Your task to perform on an android device: open device folders in google photos Image 0: 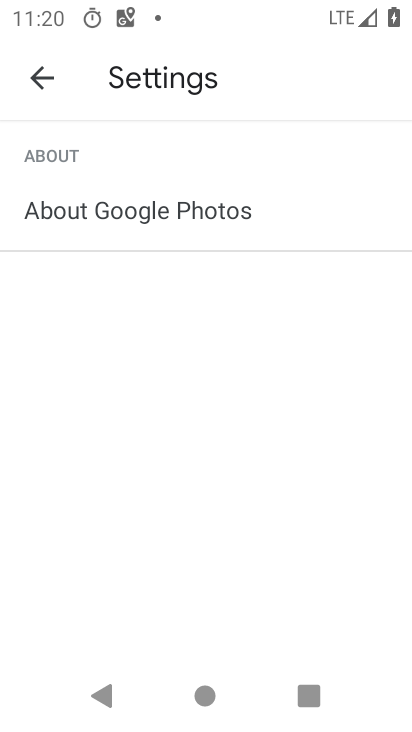
Step 0: press home button
Your task to perform on an android device: open device folders in google photos Image 1: 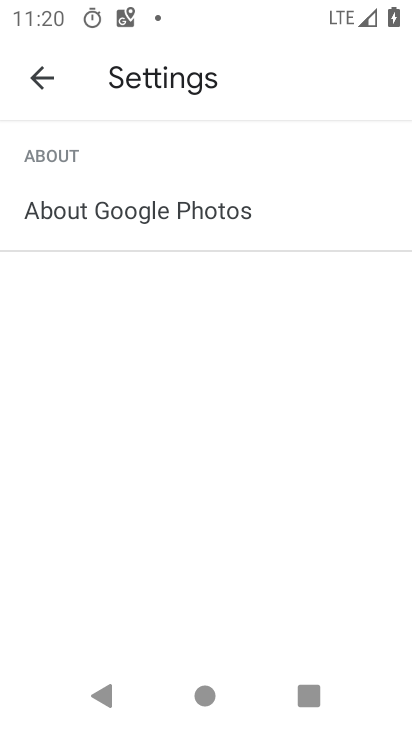
Step 1: press home button
Your task to perform on an android device: open device folders in google photos Image 2: 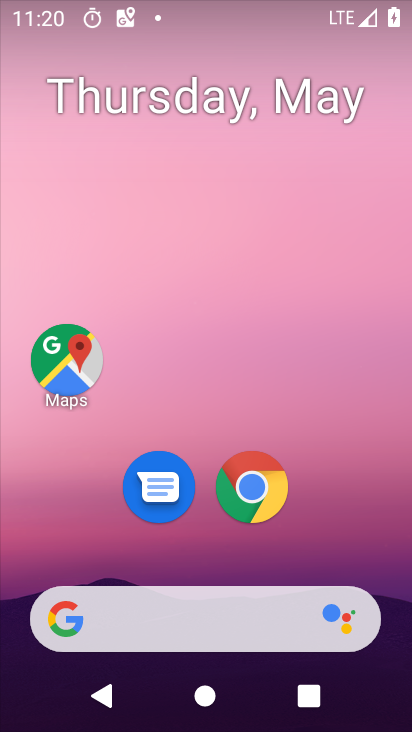
Step 2: drag from (236, 617) to (243, 0)
Your task to perform on an android device: open device folders in google photos Image 3: 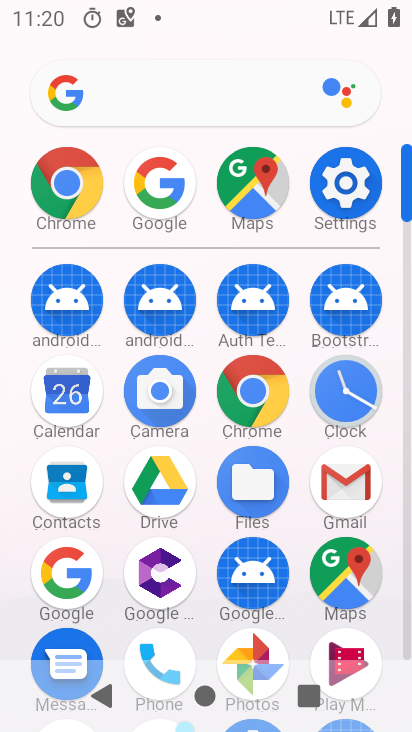
Step 3: drag from (228, 480) to (208, 76)
Your task to perform on an android device: open device folders in google photos Image 4: 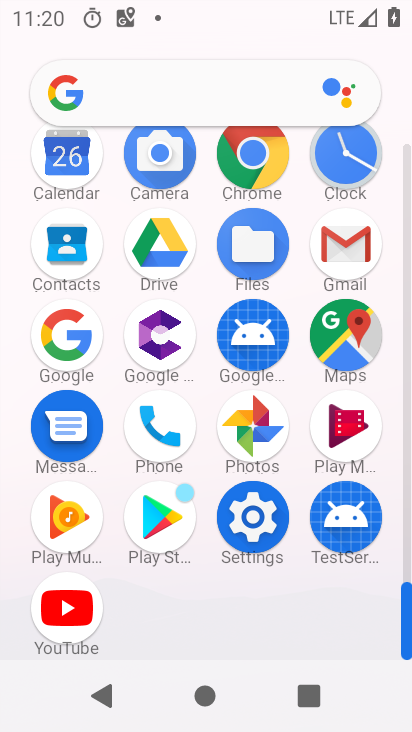
Step 4: drag from (159, 502) to (199, 56)
Your task to perform on an android device: open device folders in google photos Image 5: 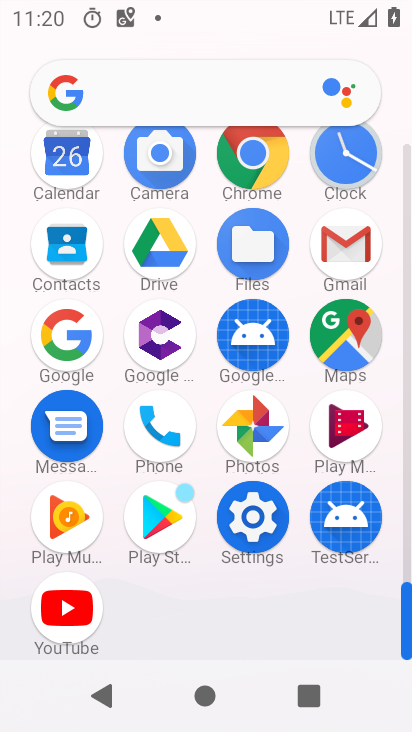
Step 5: click (254, 439)
Your task to perform on an android device: open device folders in google photos Image 6: 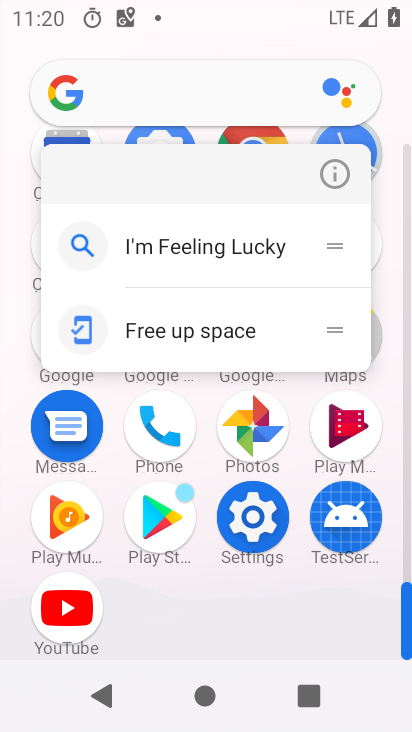
Step 6: click (262, 431)
Your task to perform on an android device: open device folders in google photos Image 7: 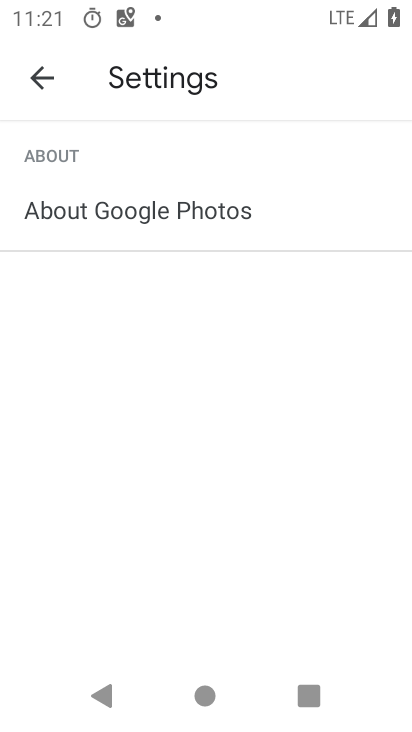
Step 7: click (29, 79)
Your task to perform on an android device: open device folders in google photos Image 8: 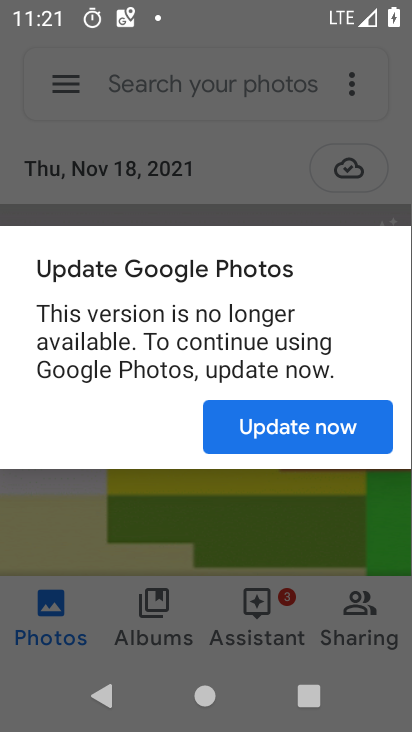
Step 8: task complete